Your task to perform on an android device: add a contact Image 0: 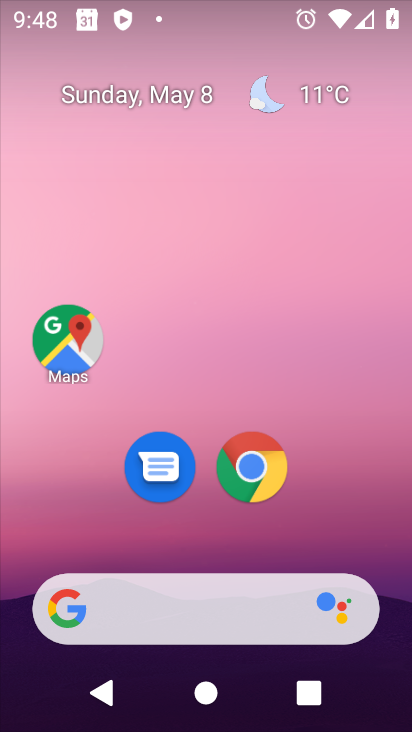
Step 0: drag from (52, 541) to (332, 85)
Your task to perform on an android device: add a contact Image 1: 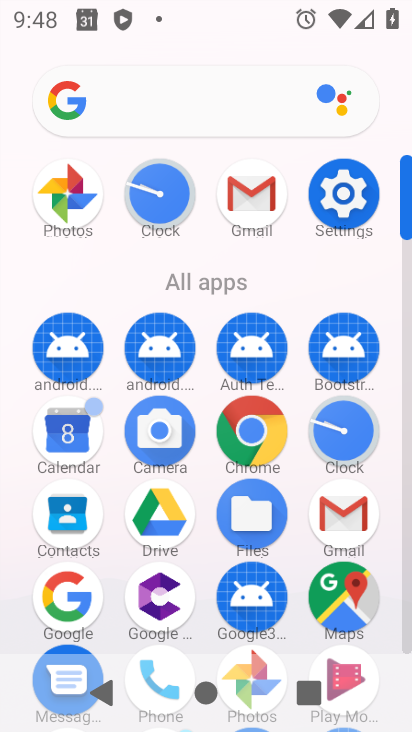
Step 1: drag from (137, 626) to (214, 224)
Your task to perform on an android device: add a contact Image 2: 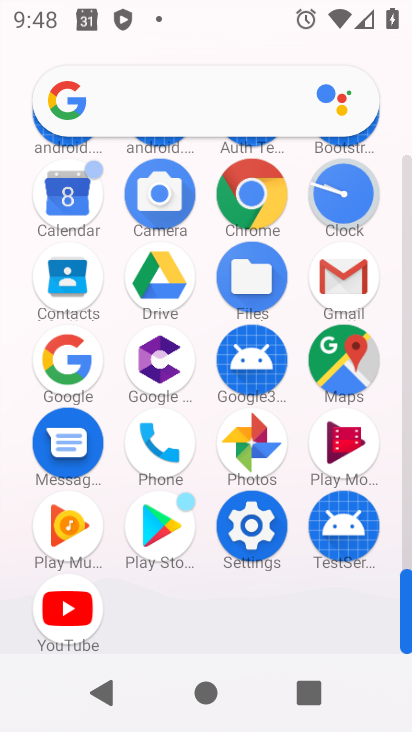
Step 2: click (153, 440)
Your task to perform on an android device: add a contact Image 3: 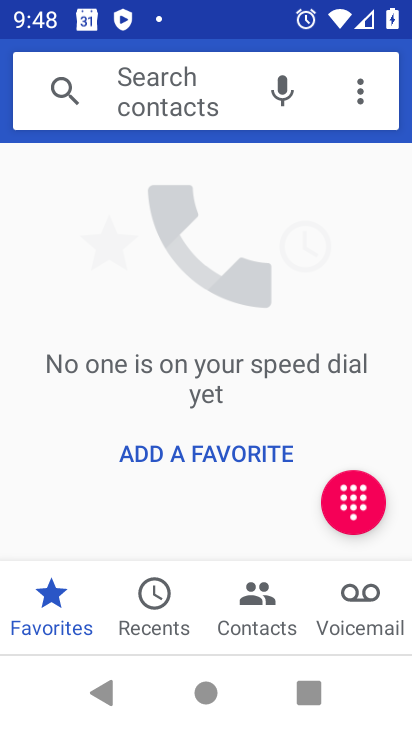
Step 3: click (262, 627)
Your task to perform on an android device: add a contact Image 4: 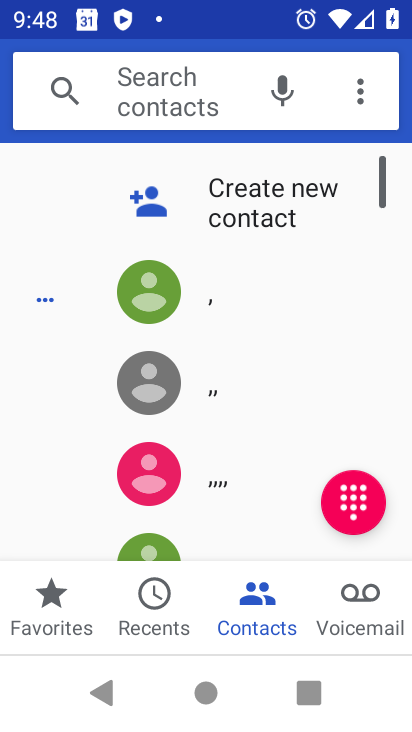
Step 4: click (278, 192)
Your task to perform on an android device: add a contact Image 5: 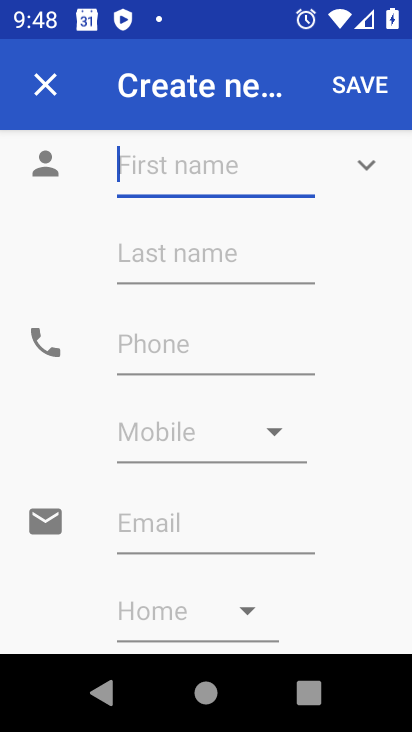
Step 5: click (139, 166)
Your task to perform on an android device: add a contact Image 6: 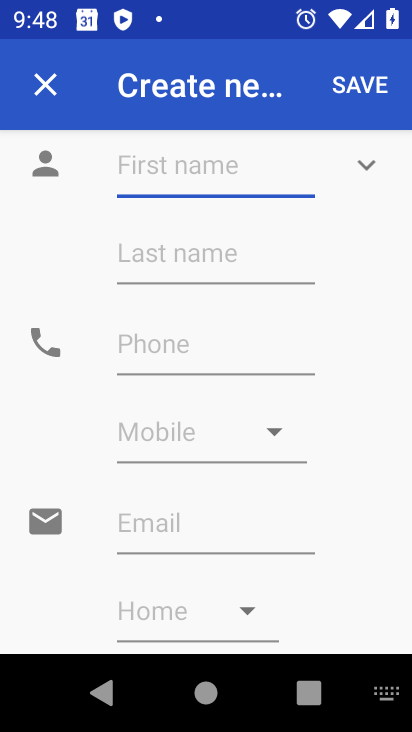
Step 6: type "jjjhjh"
Your task to perform on an android device: add a contact Image 7: 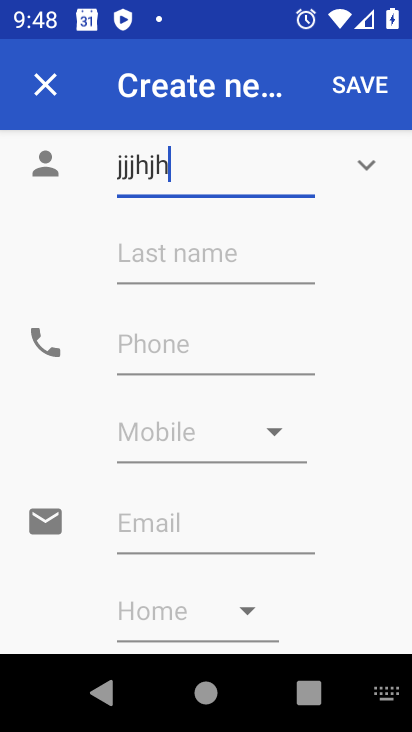
Step 7: click (174, 433)
Your task to perform on an android device: add a contact Image 8: 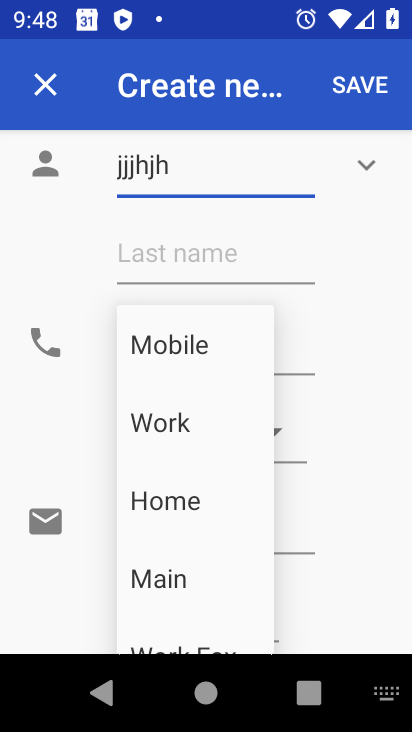
Step 8: click (369, 478)
Your task to perform on an android device: add a contact Image 9: 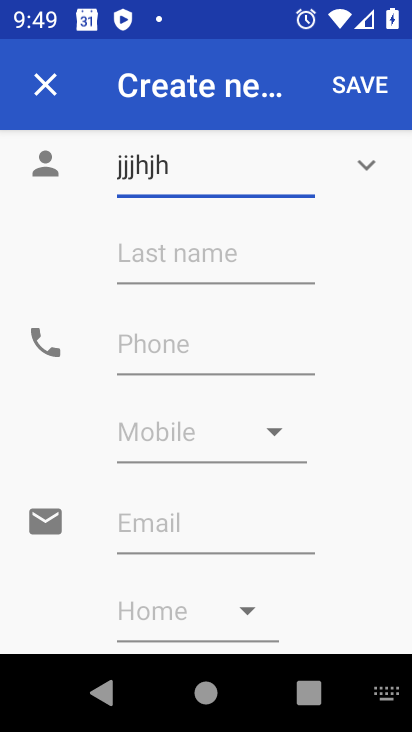
Step 9: click (146, 433)
Your task to perform on an android device: add a contact Image 10: 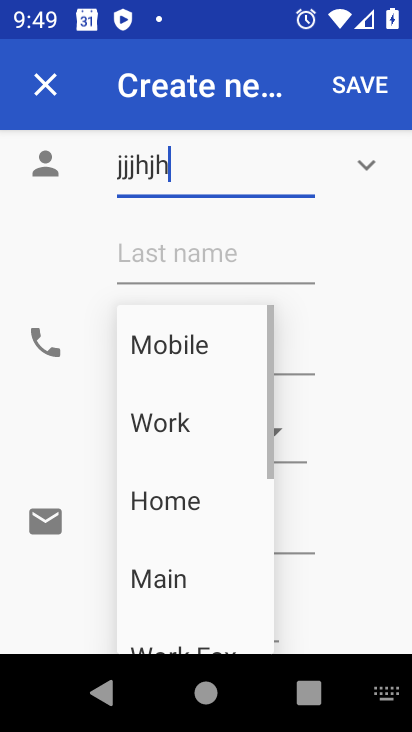
Step 10: click (381, 431)
Your task to perform on an android device: add a contact Image 11: 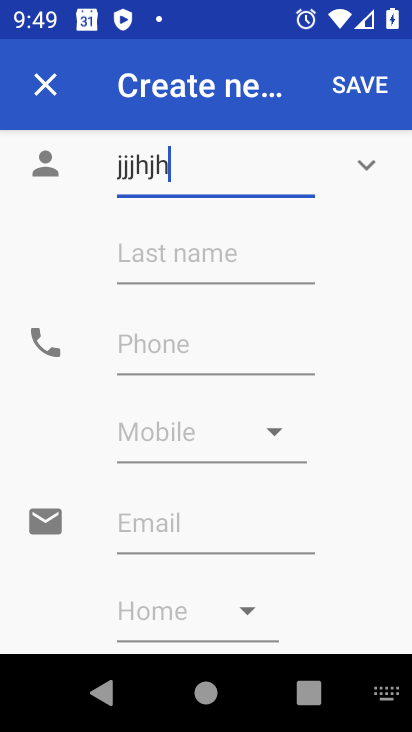
Step 11: click (45, 326)
Your task to perform on an android device: add a contact Image 12: 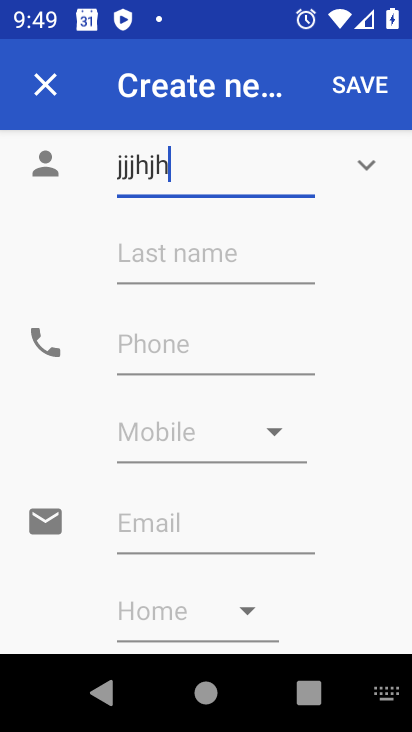
Step 12: click (159, 348)
Your task to perform on an android device: add a contact Image 13: 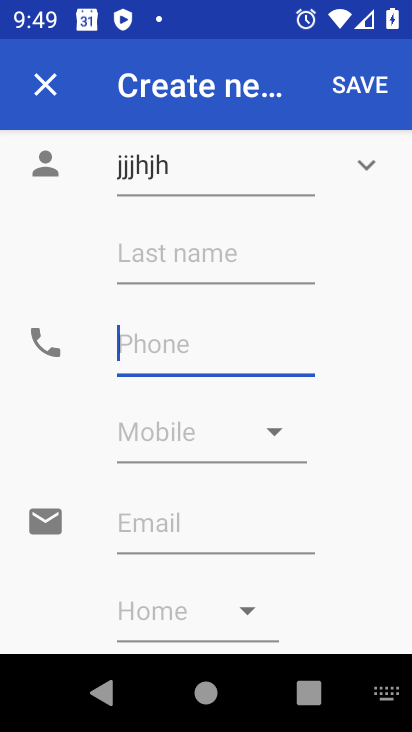
Step 13: type "987654321"
Your task to perform on an android device: add a contact Image 14: 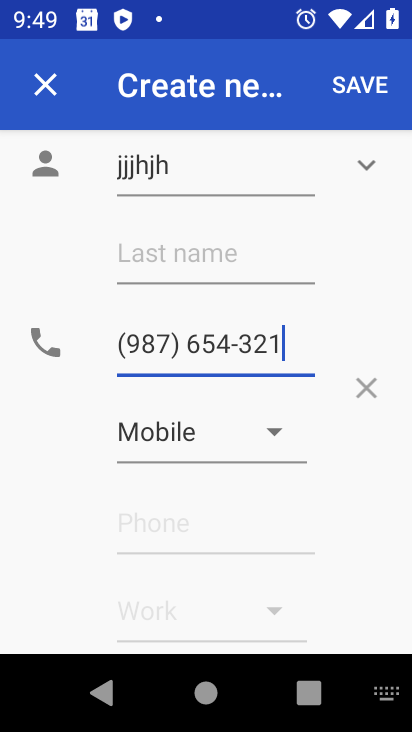
Step 14: type ""
Your task to perform on an android device: add a contact Image 15: 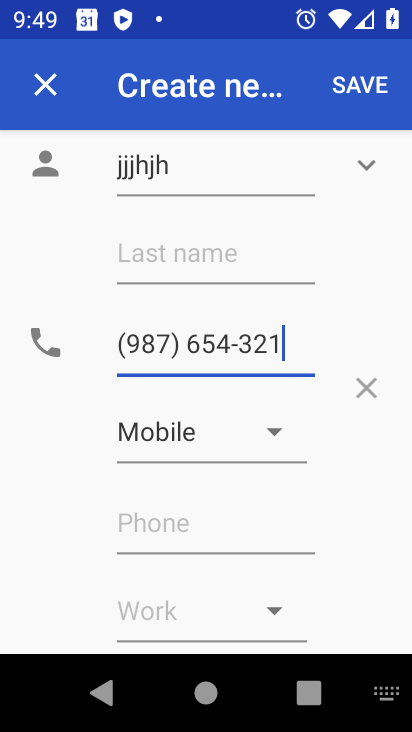
Step 15: click (381, 88)
Your task to perform on an android device: add a contact Image 16: 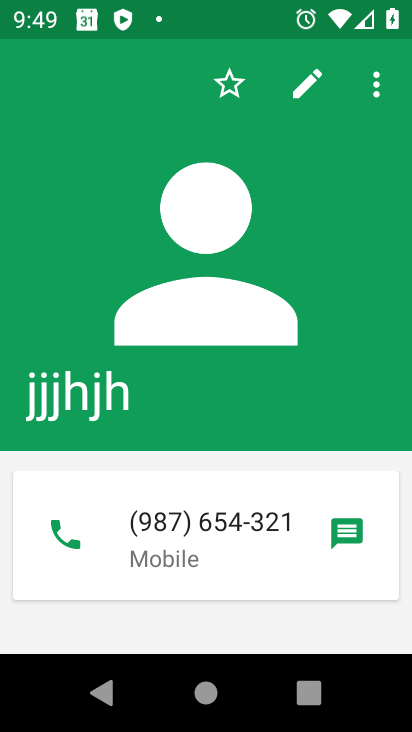
Step 16: task complete